Your task to perform on an android device: Turn on the flashlight Image 0: 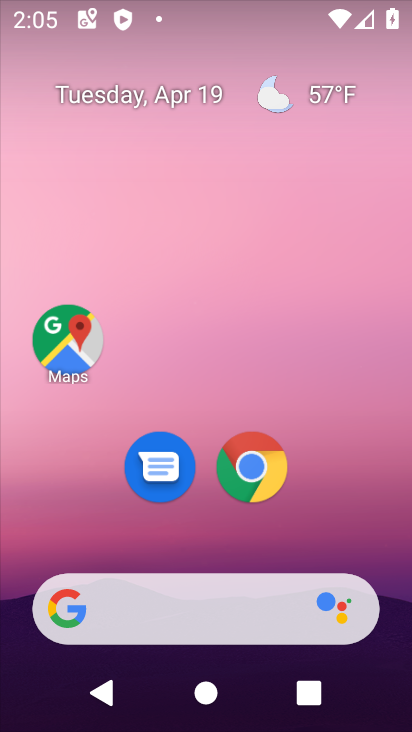
Step 0: drag from (212, 542) to (277, 72)
Your task to perform on an android device: Turn on the flashlight Image 1: 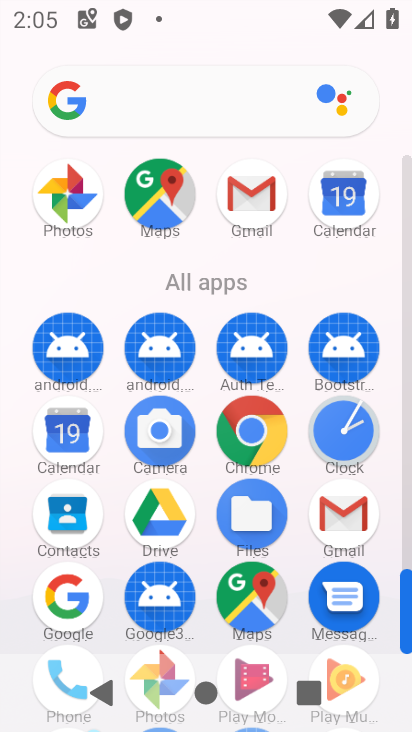
Step 1: drag from (199, 472) to (218, 277)
Your task to perform on an android device: Turn on the flashlight Image 2: 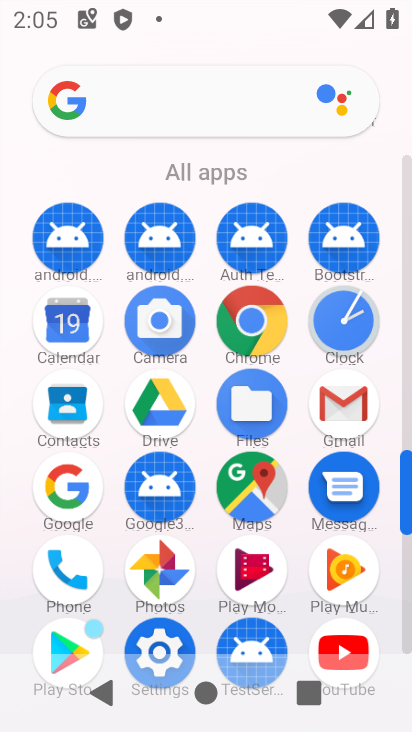
Step 2: click (163, 646)
Your task to perform on an android device: Turn on the flashlight Image 3: 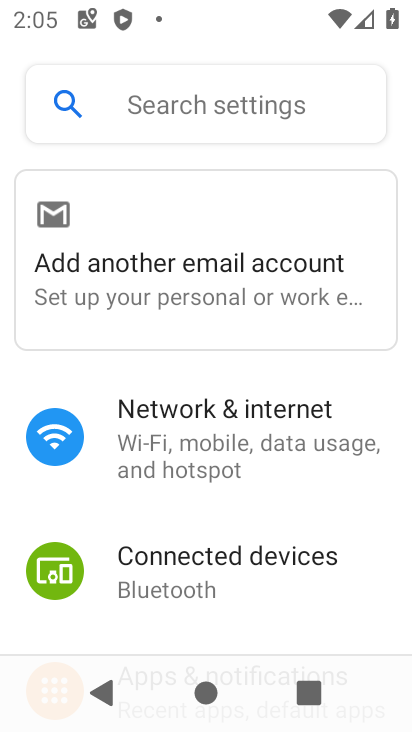
Step 3: click (215, 100)
Your task to perform on an android device: Turn on the flashlight Image 4: 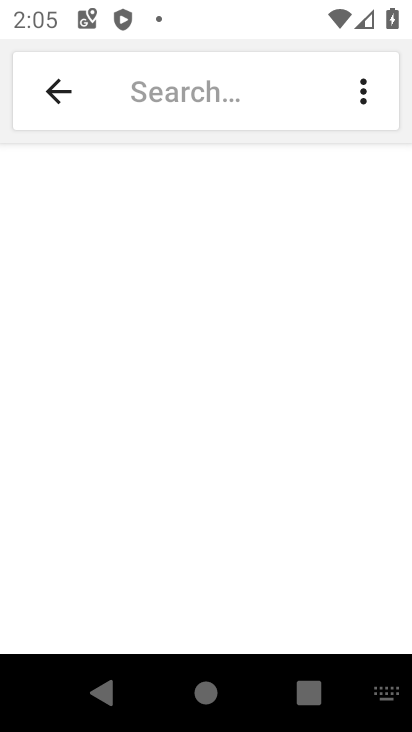
Step 4: type "flashlight"
Your task to perform on an android device: Turn on the flashlight Image 5: 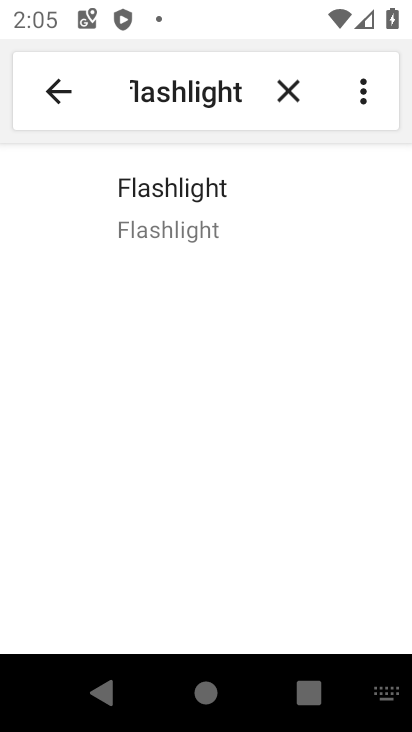
Step 5: click (161, 225)
Your task to perform on an android device: Turn on the flashlight Image 6: 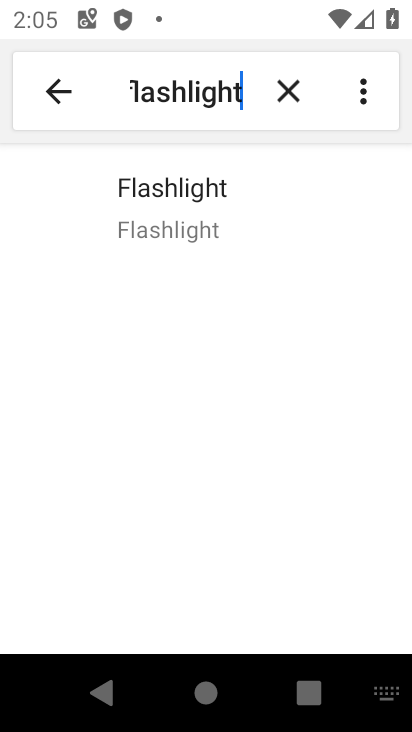
Step 6: click (161, 225)
Your task to perform on an android device: Turn on the flashlight Image 7: 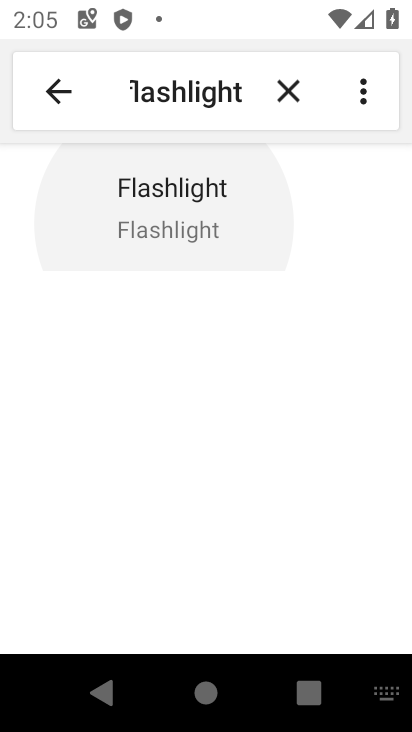
Step 7: click (161, 225)
Your task to perform on an android device: Turn on the flashlight Image 8: 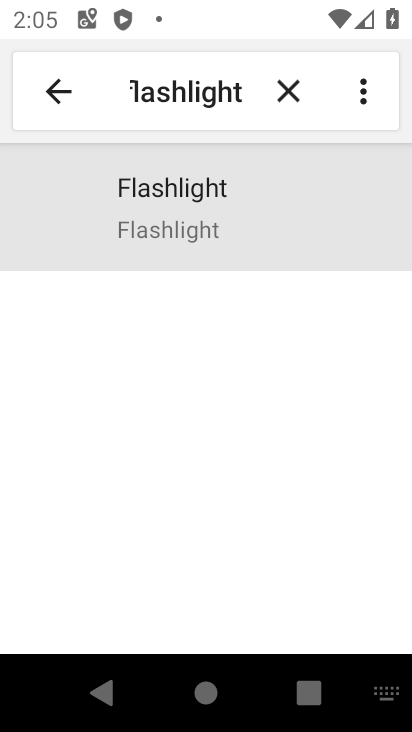
Step 8: click (161, 225)
Your task to perform on an android device: Turn on the flashlight Image 9: 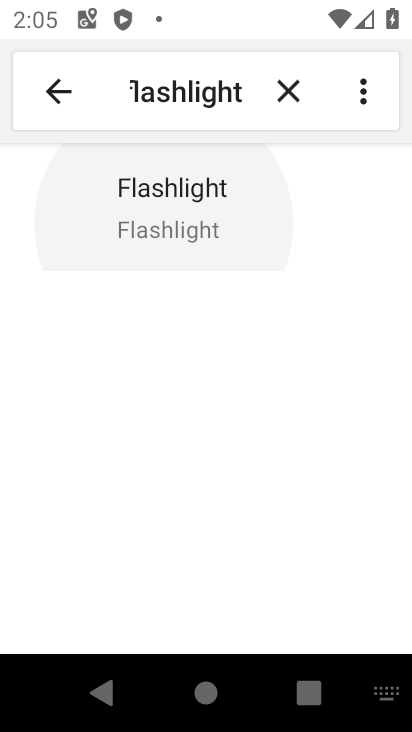
Step 9: click (152, 250)
Your task to perform on an android device: Turn on the flashlight Image 10: 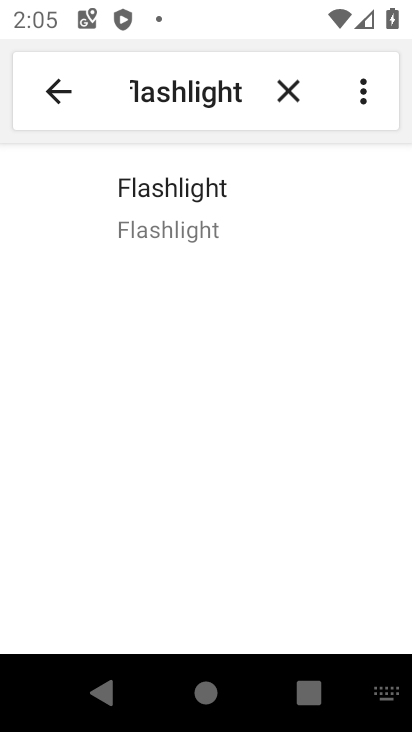
Step 10: task complete